Your task to perform on an android device: View the shopping cart on amazon.com. Add rayovac triple a to the cart on amazon.com Image 0: 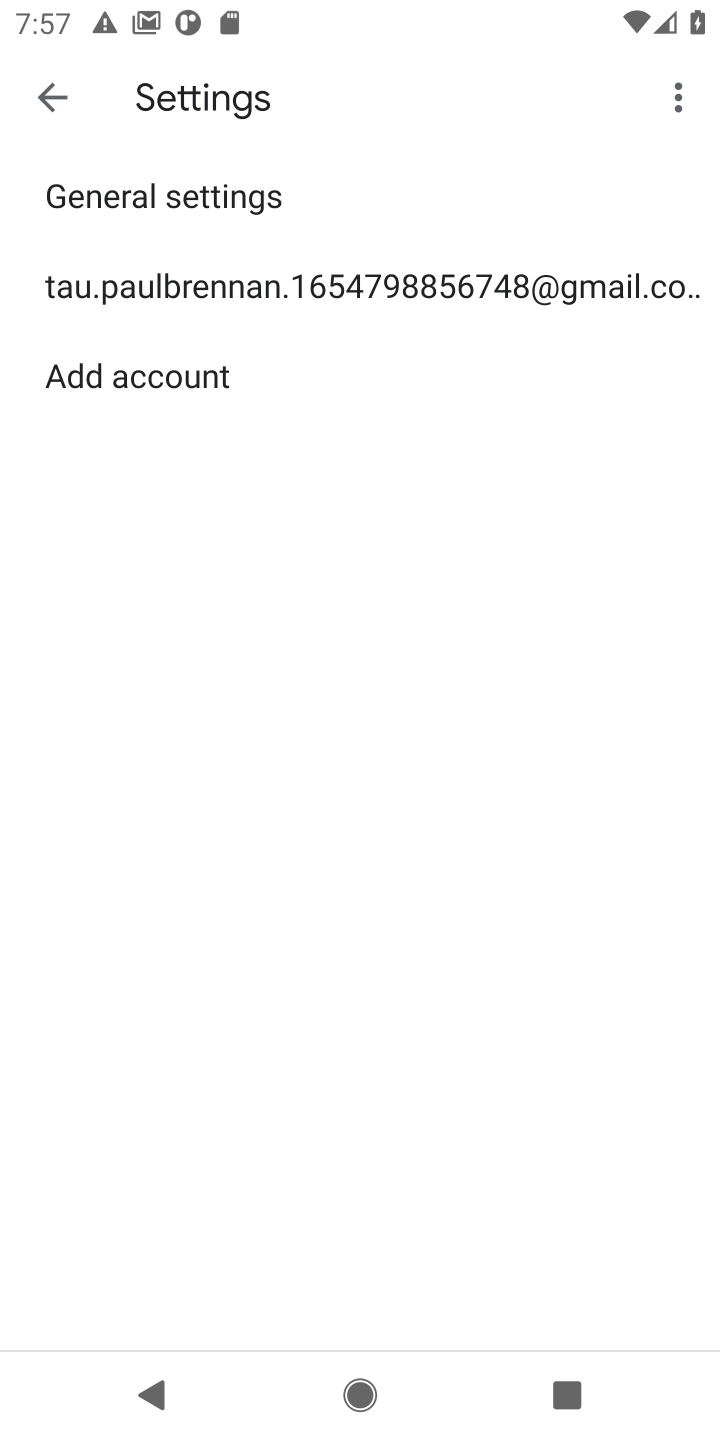
Step 0: press home button
Your task to perform on an android device: View the shopping cart on amazon.com. Add rayovac triple a to the cart on amazon.com Image 1: 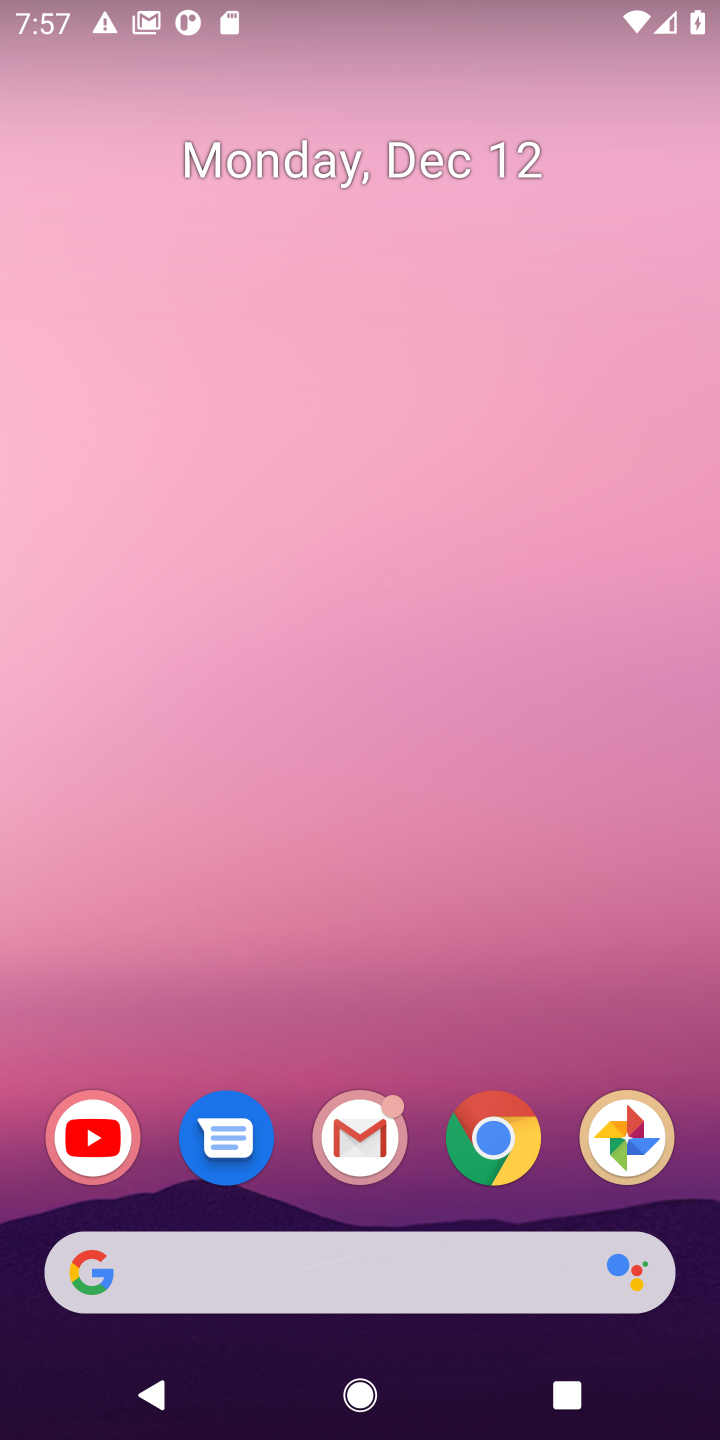
Step 1: drag from (171, 1264) to (254, 284)
Your task to perform on an android device: View the shopping cart on amazon.com. Add rayovac triple a to the cart on amazon.com Image 2: 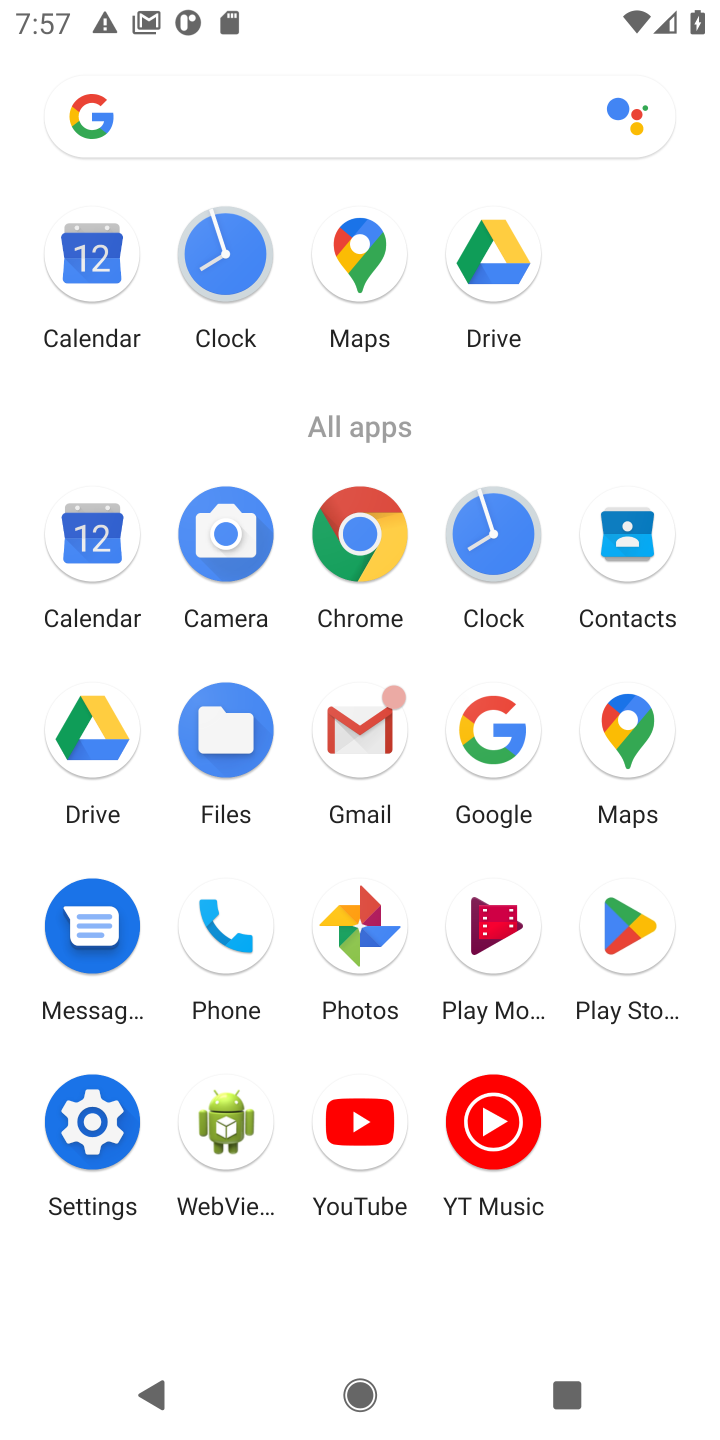
Step 2: click (473, 706)
Your task to perform on an android device: View the shopping cart on amazon.com. Add rayovac triple a to the cart on amazon.com Image 3: 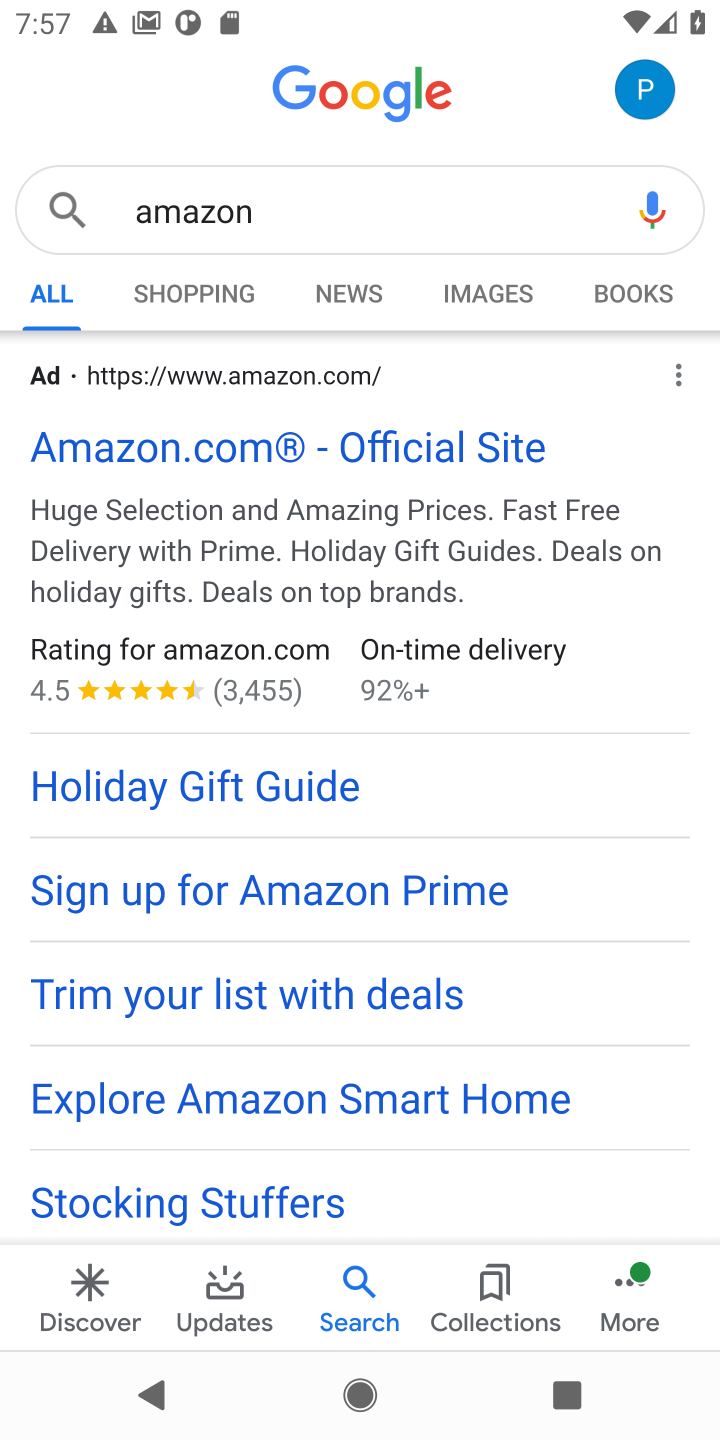
Step 3: click (192, 447)
Your task to perform on an android device: View the shopping cart on amazon.com. Add rayovac triple a to the cart on amazon.com Image 4: 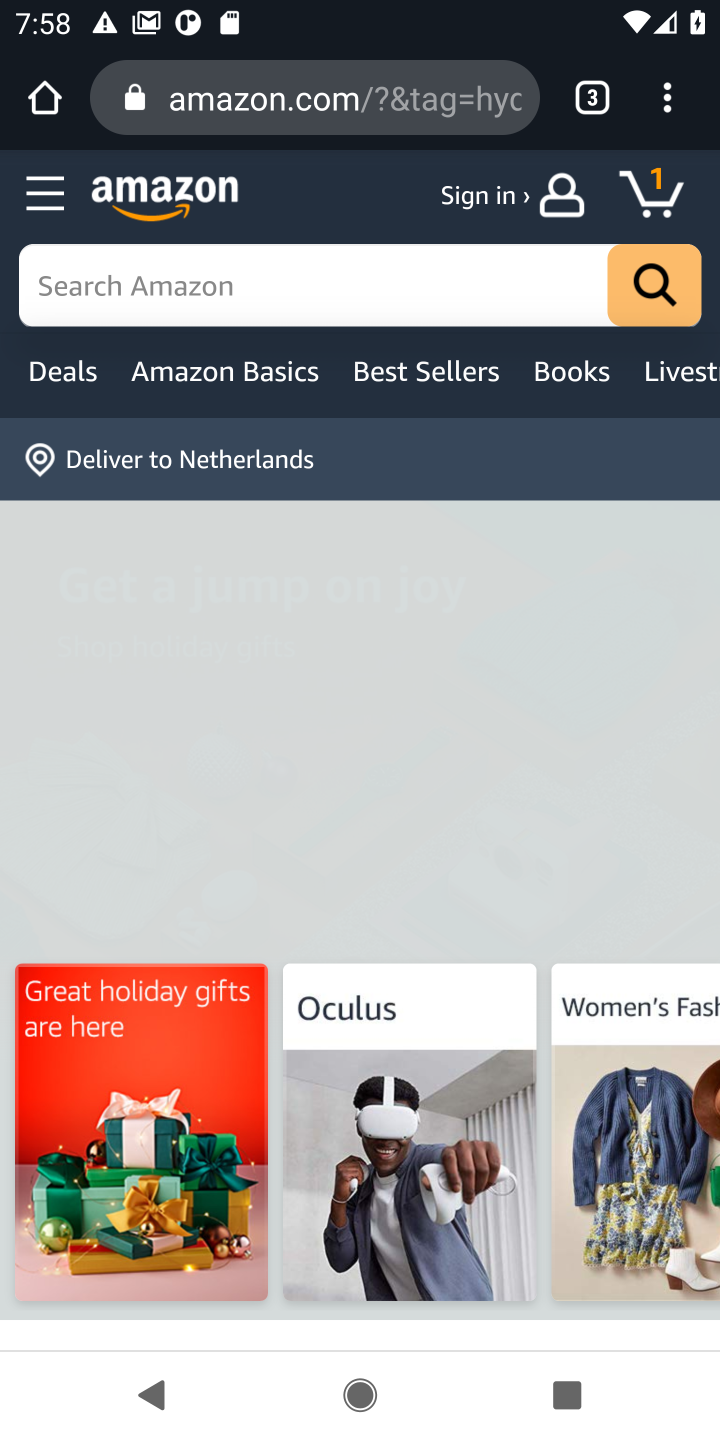
Step 4: click (663, 187)
Your task to perform on an android device: View the shopping cart on amazon.com. Add rayovac triple a to the cart on amazon.com Image 5: 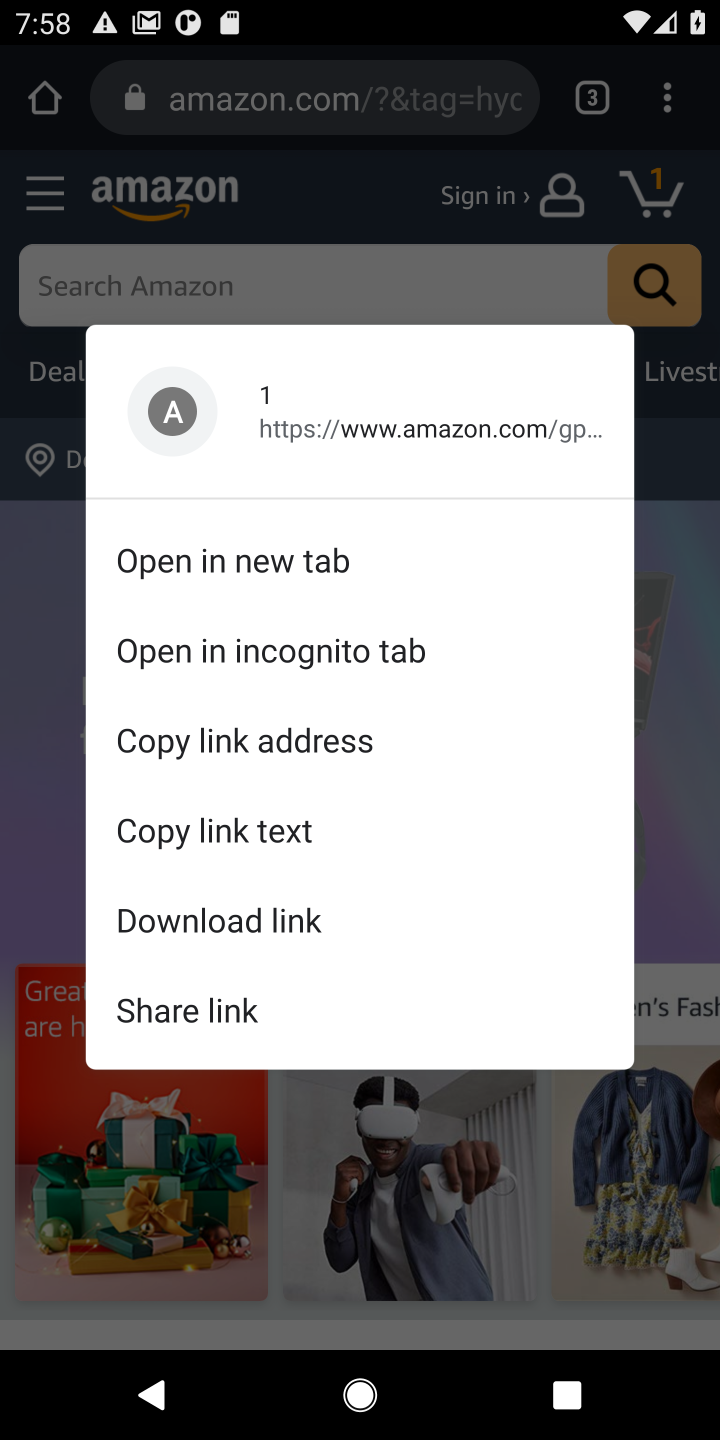
Step 5: click (647, 441)
Your task to perform on an android device: View the shopping cart on amazon.com. Add rayovac triple a to the cart on amazon.com Image 6: 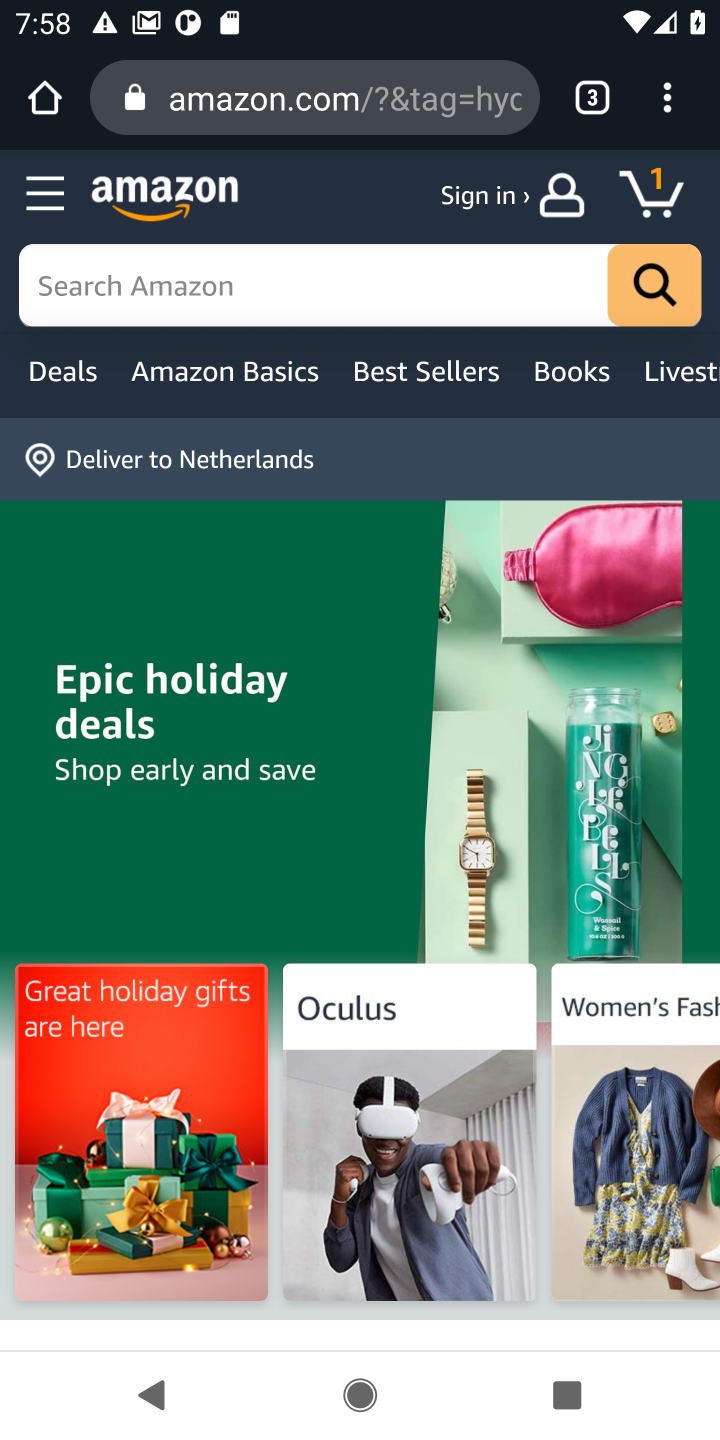
Step 6: click (115, 276)
Your task to perform on an android device: View the shopping cart on amazon.com. Add rayovac triple a to the cart on amazon.com Image 7: 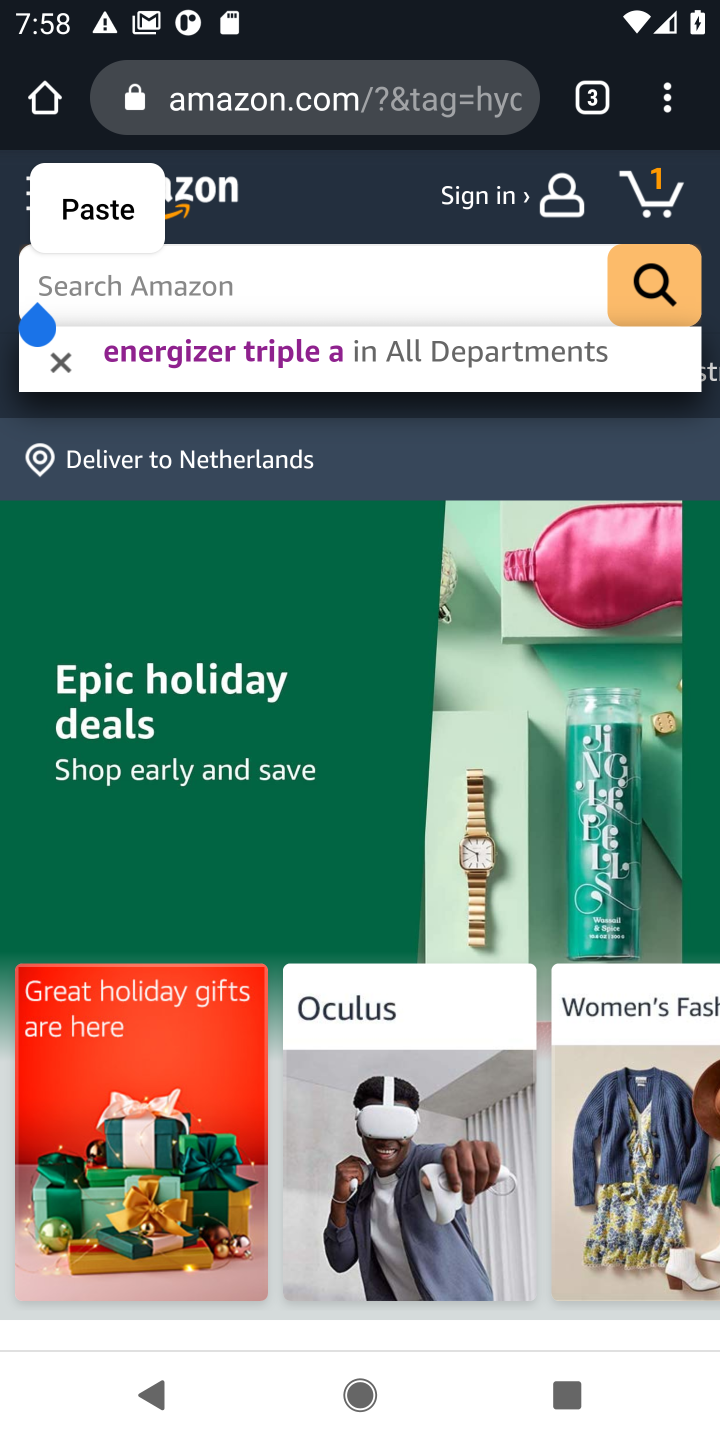
Step 7: type "rayovac triple a"
Your task to perform on an android device: View the shopping cart on amazon.com. Add rayovac triple a to the cart on amazon.com Image 8: 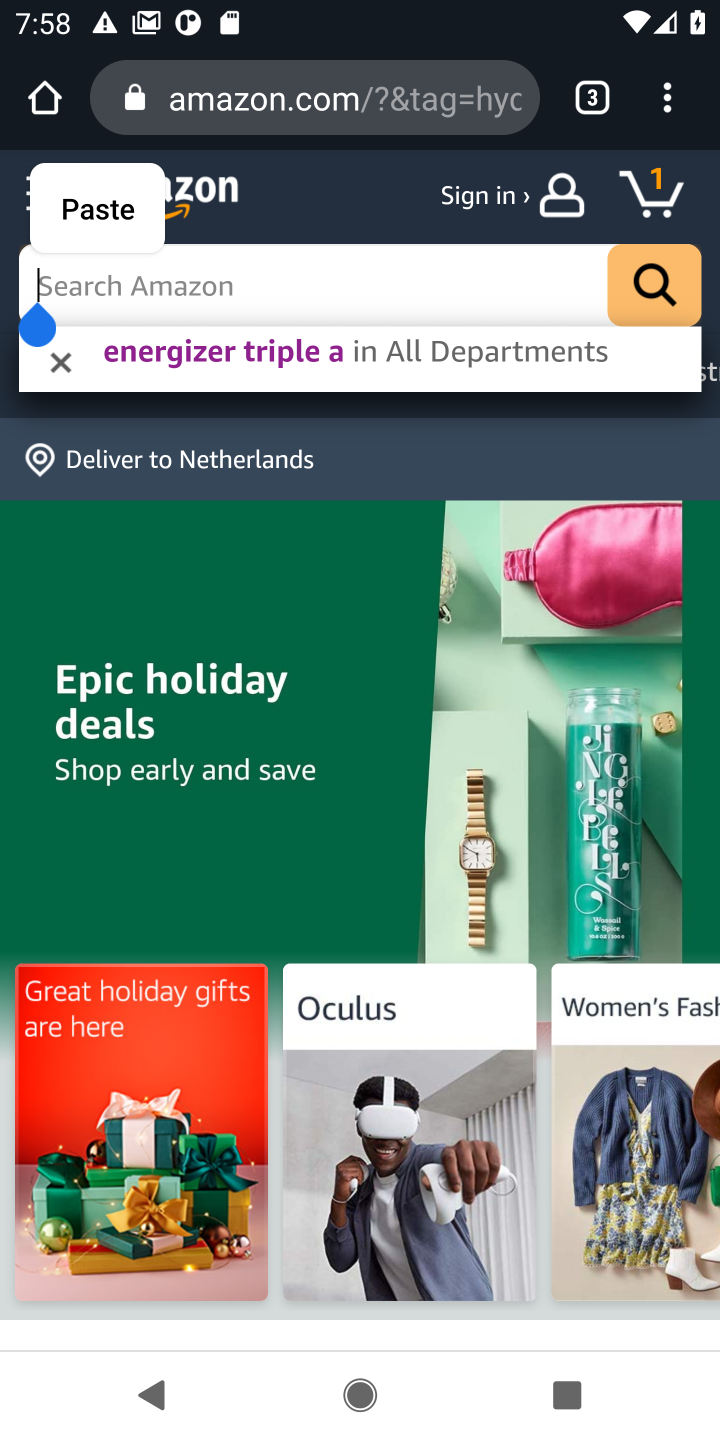
Step 8: click (642, 288)
Your task to perform on an android device: View the shopping cart on amazon.com. Add rayovac triple a to the cart on amazon.com Image 9: 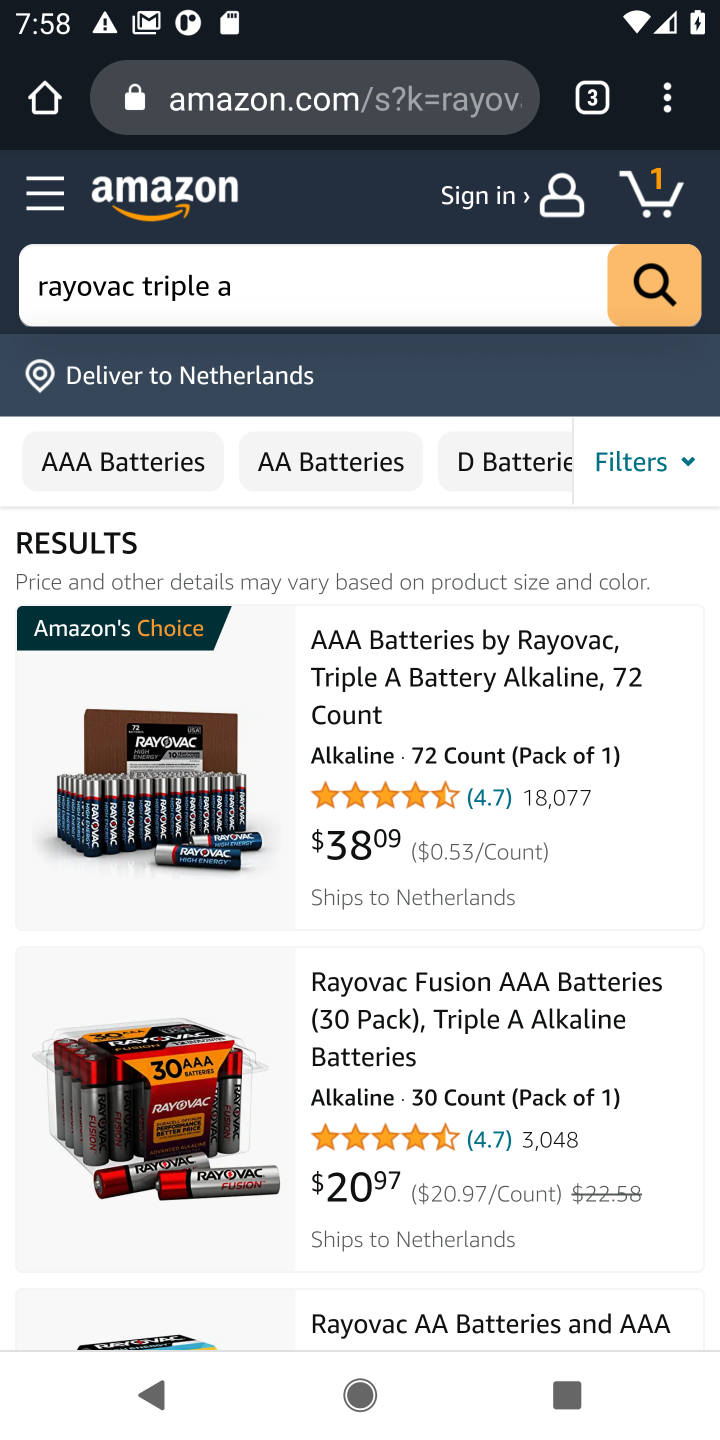
Step 9: click (403, 749)
Your task to perform on an android device: View the shopping cart on amazon.com. Add rayovac triple a to the cart on amazon.com Image 10: 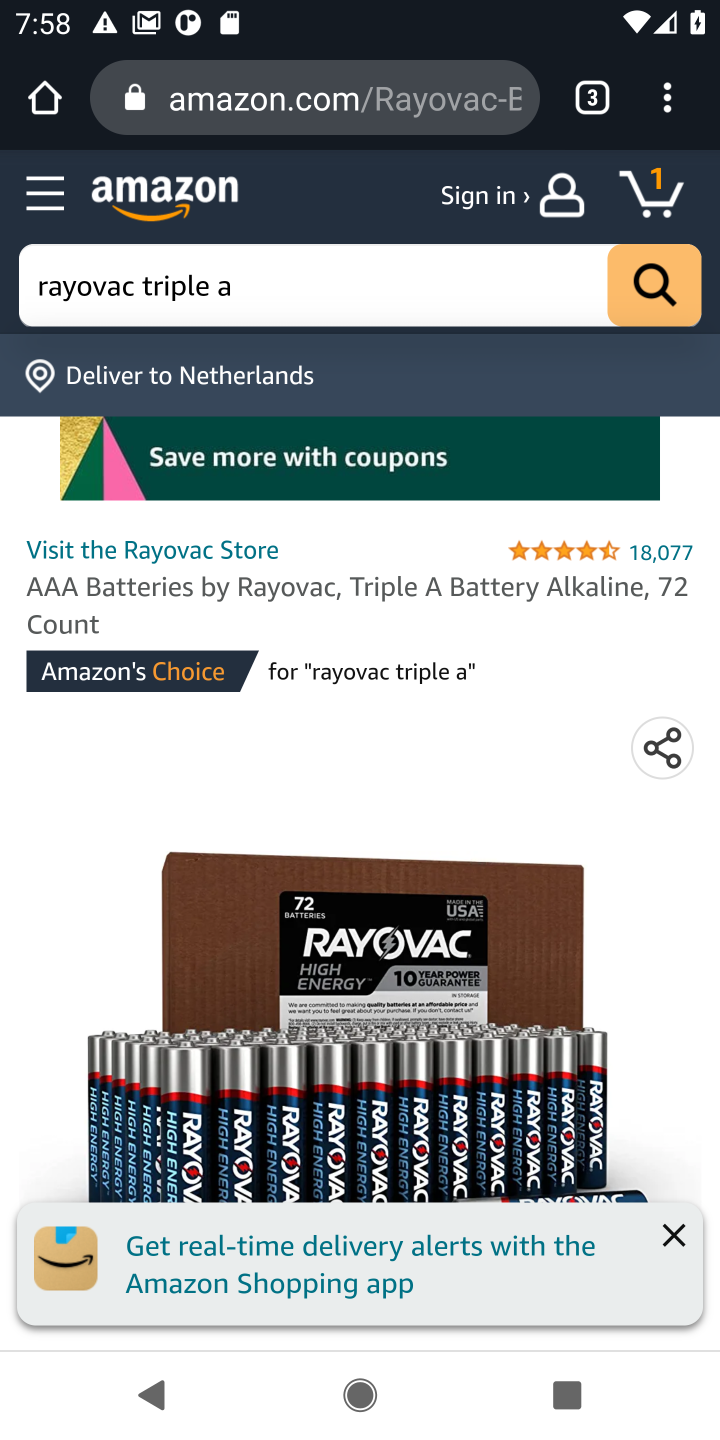
Step 10: drag from (365, 1190) to (479, 413)
Your task to perform on an android device: View the shopping cart on amazon.com. Add rayovac triple a to the cart on amazon.com Image 11: 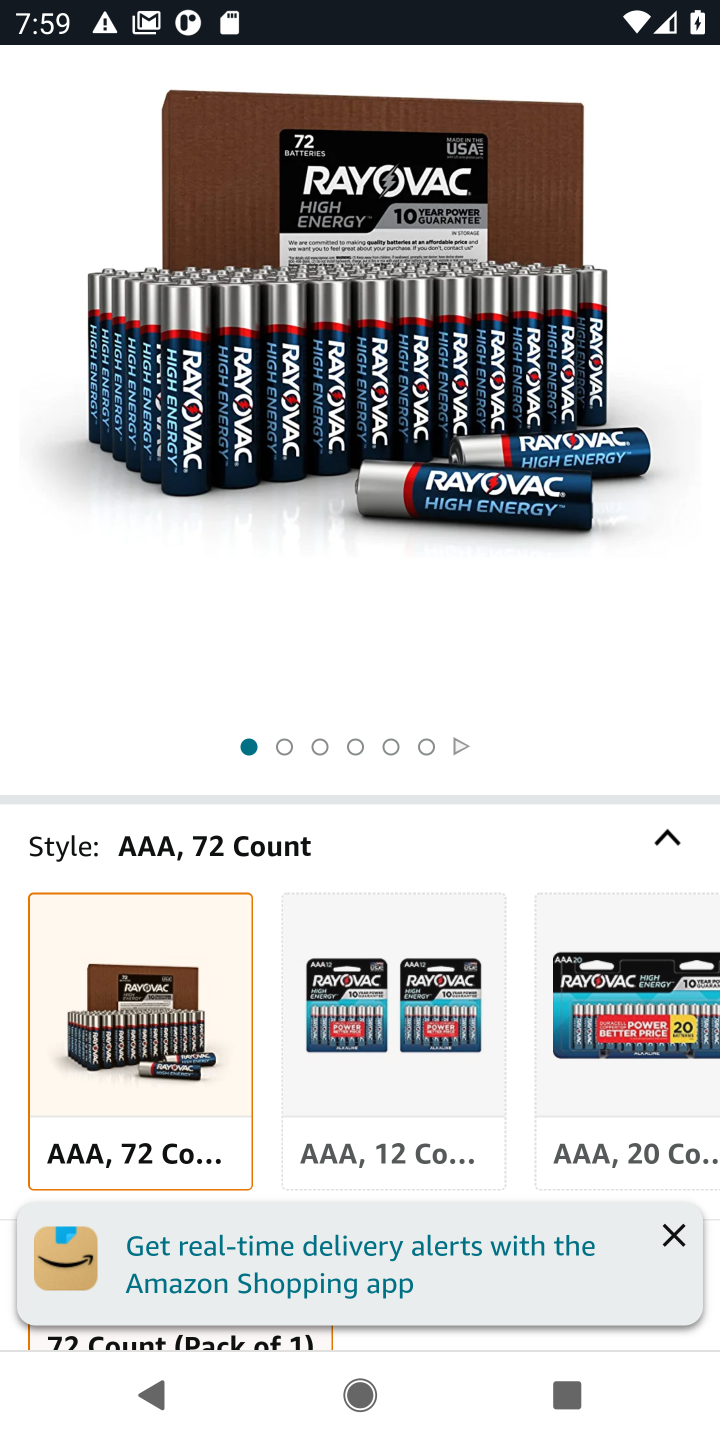
Step 11: drag from (378, 968) to (390, 376)
Your task to perform on an android device: View the shopping cart on amazon.com. Add rayovac triple a to the cart on amazon.com Image 12: 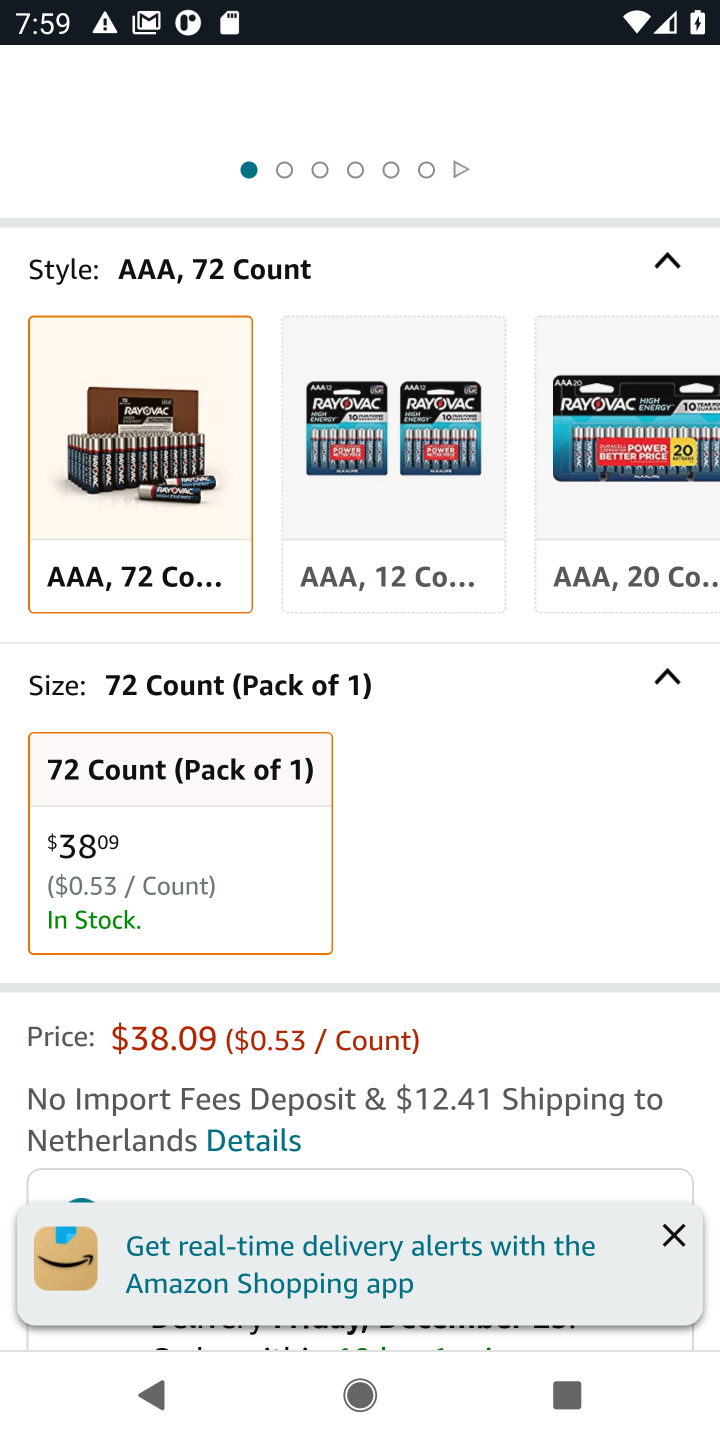
Step 12: drag from (327, 1169) to (367, 399)
Your task to perform on an android device: View the shopping cart on amazon.com. Add rayovac triple a to the cart on amazon.com Image 13: 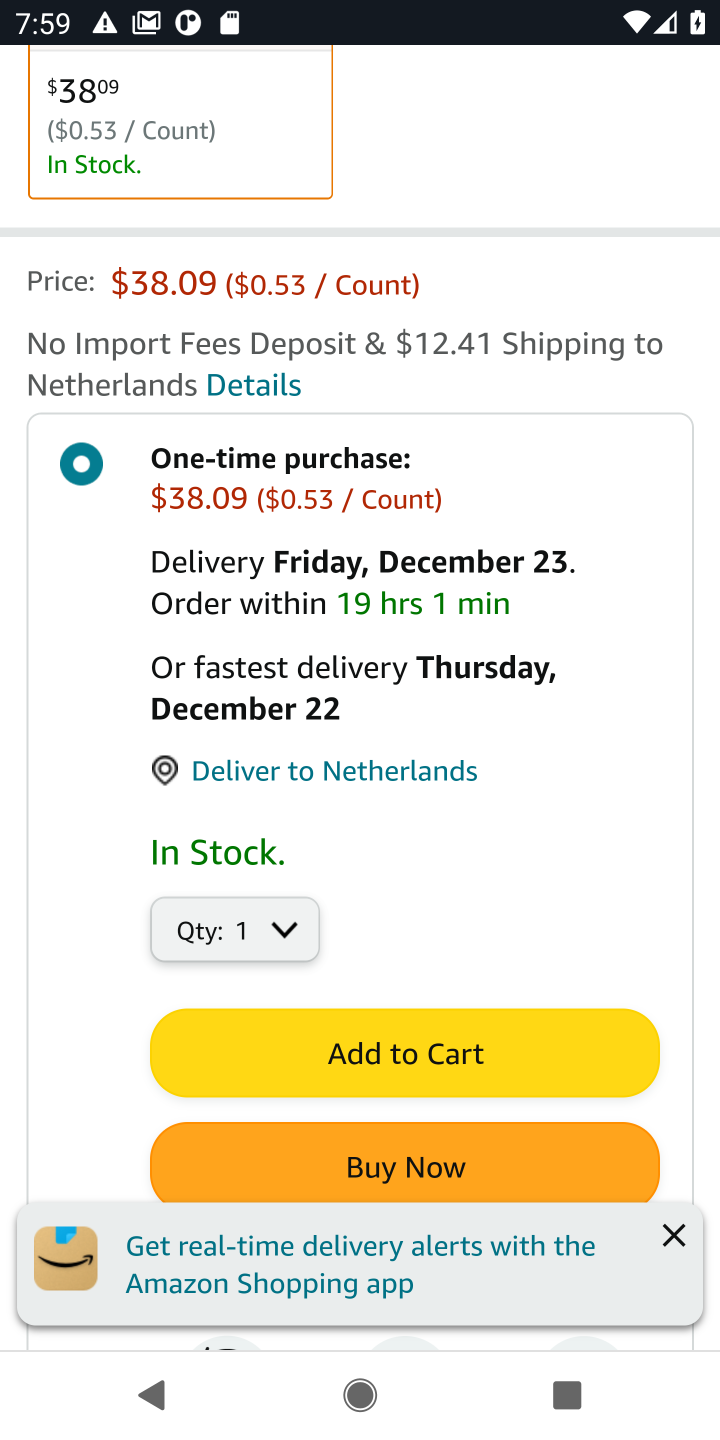
Step 13: click (385, 1047)
Your task to perform on an android device: View the shopping cart on amazon.com. Add rayovac triple a to the cart on amazon.com Image 14: 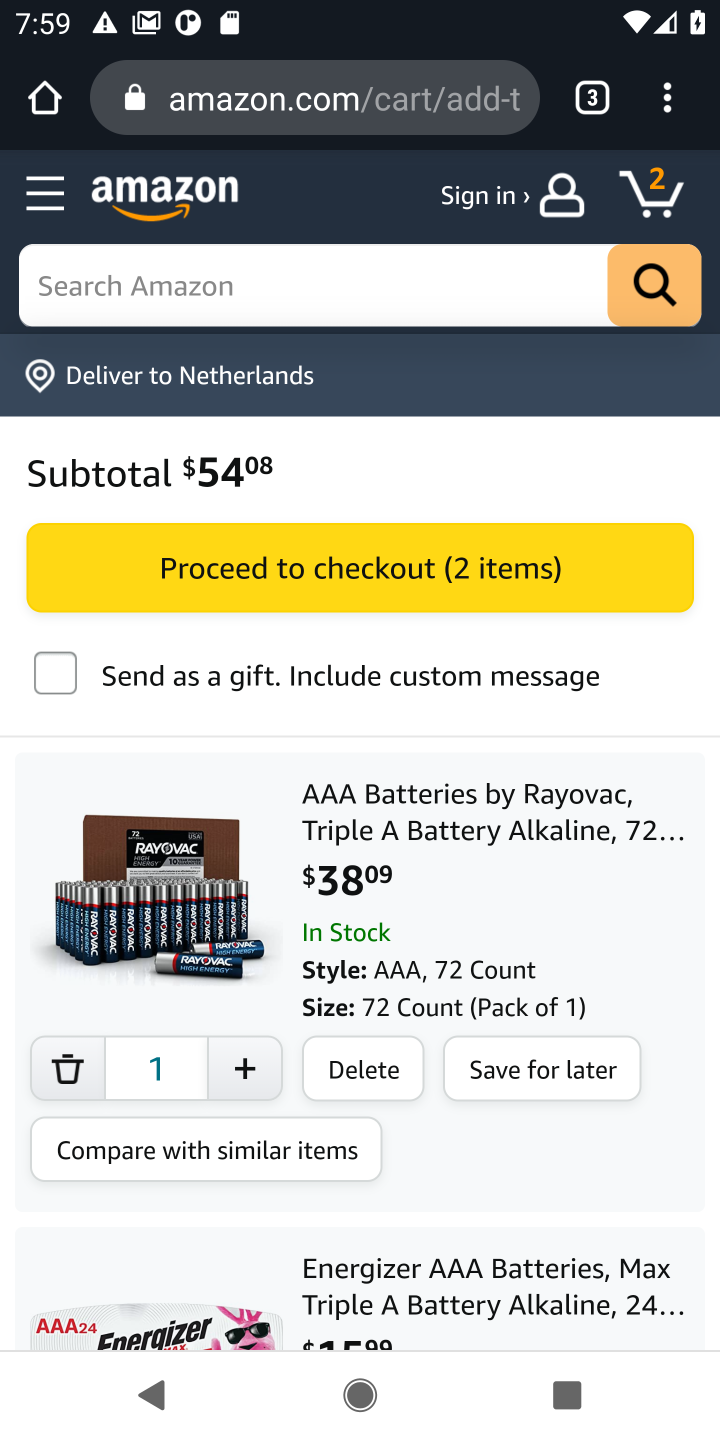
Step 14: task complete